Your task to perform on an android device: turn off airplane mode Image 0: 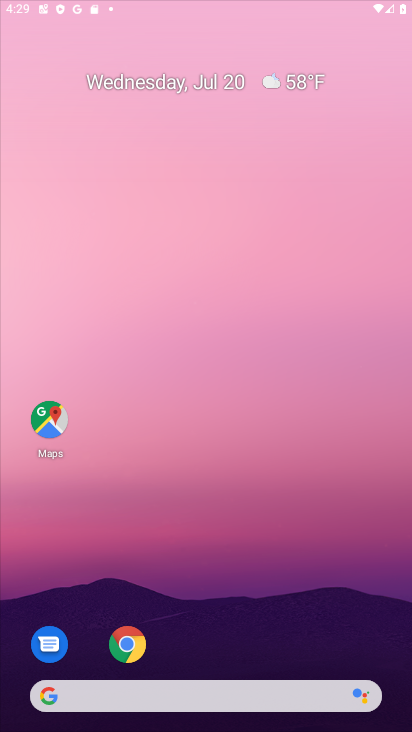
Step 0: press home button
Your task to perform on an android device: turn off airplane mode Image 1: 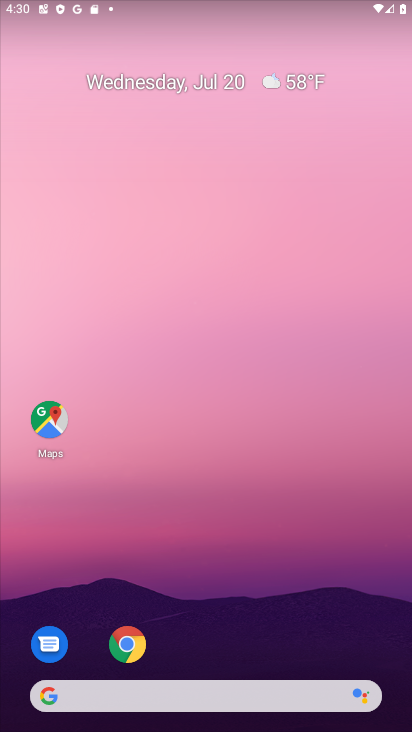
Step 1: task complete